Your task to perform on an android device: remove spam from my inbox in the gmail app Image 0: 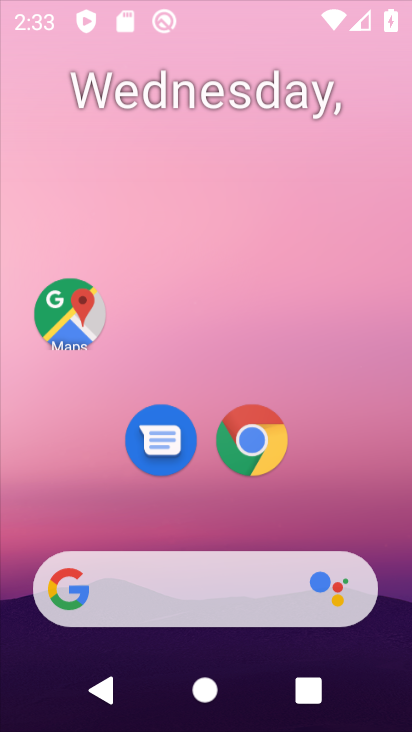
Step 0: click (289, 5)
Your task to perform on an android device: remove spam from my inbox in the gmail app Image 1: 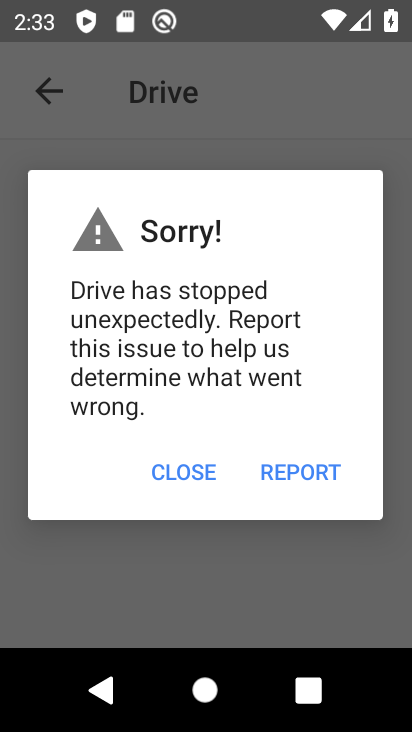
Step 1: press home button
Your task to perform on an android device: remove spam from my inbox in the gmail app Image 2: 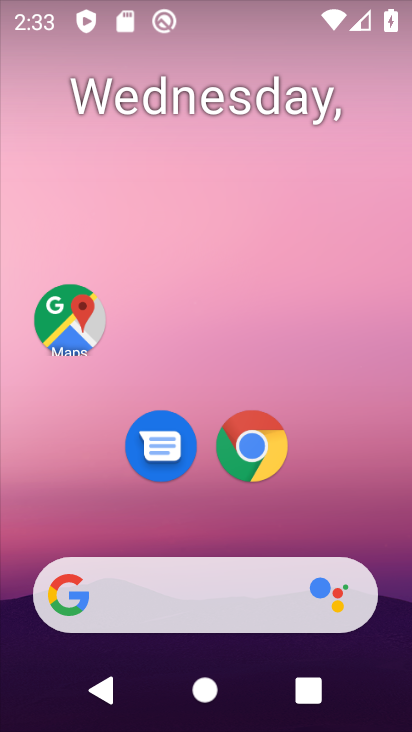
Step 2: drag from (329, 546) to (351, 36)
Your task to perform on an android device: remove spam from my inbox in the gmail app Image 3: 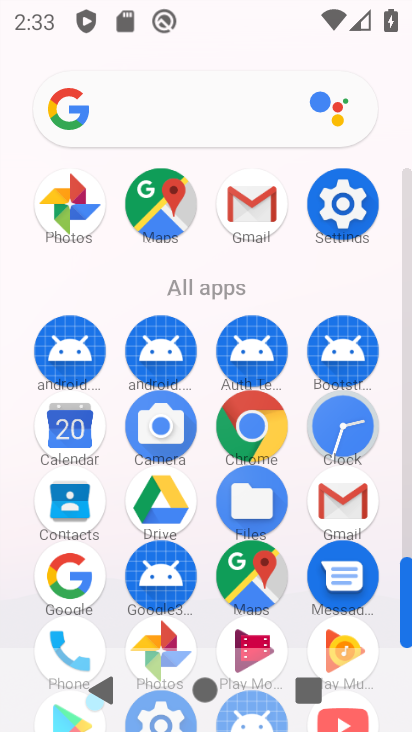
Step 3: click (250, 222)
Your task to perform on an android device: remove spam from my inbox in the gmail app Image 4: 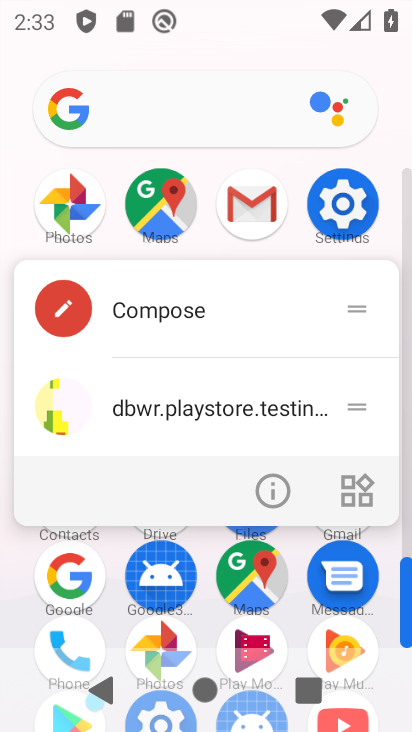
Step 4: click (250, 222)
Your task to perform on an android device: remove spam from my inbox in the gmail app Image 5: 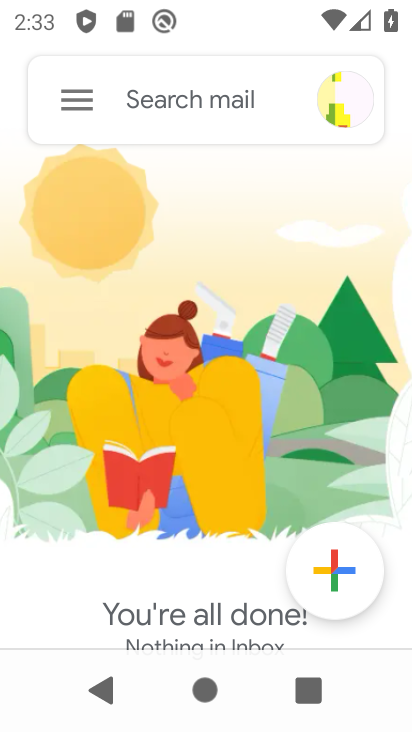
Step 5: click (88, 105)
Your task to perform on an android device: remove spam from my inbox in the gmail app Image 6: 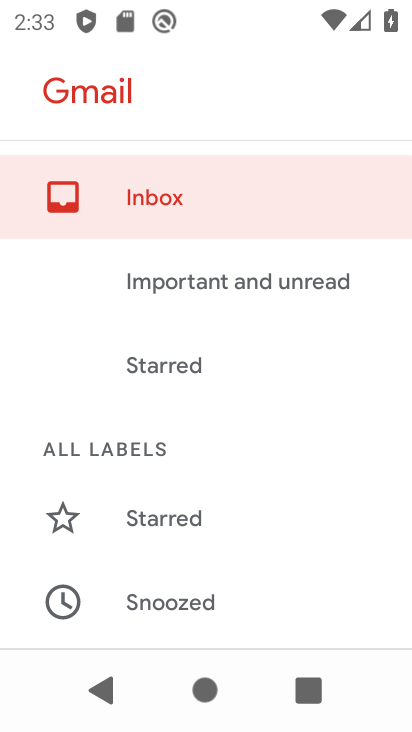
Step 6: drag from (192, 460) to (237, 314)
Your task to perform on an android device: remove spam from my inbox in the gmail app Image 7: 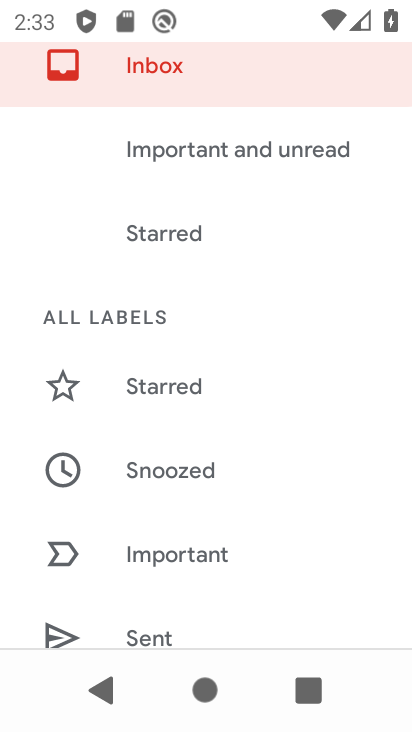
Step 7: drag from (208, 447) to (228, 358)
Your task to perform on an android device: remove spam from my inbox in the gmail app Image 8: 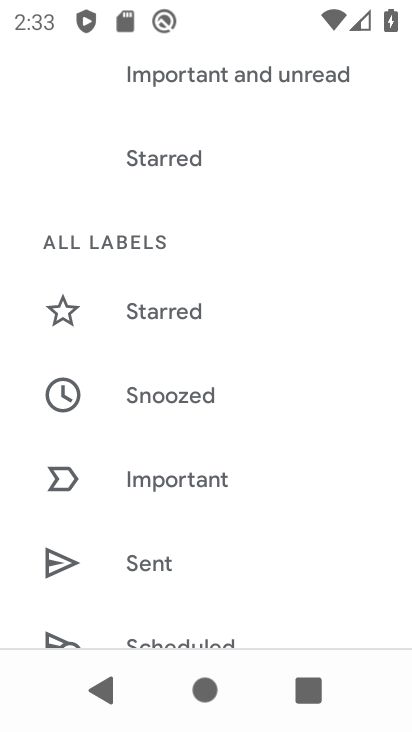
Step 8: drag from (189, 434) to (199, 347)
Your task to perform on an android device: remove spam from my inbox in the gmail app Image 9: 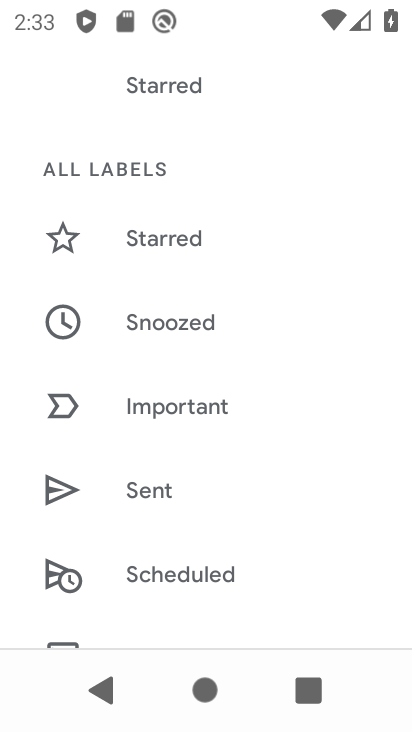
Step 9: drag from (185, 454) to (196, 360)
Your task to perform on an android device: remove spam from my inbox in the gmail app Image 10: 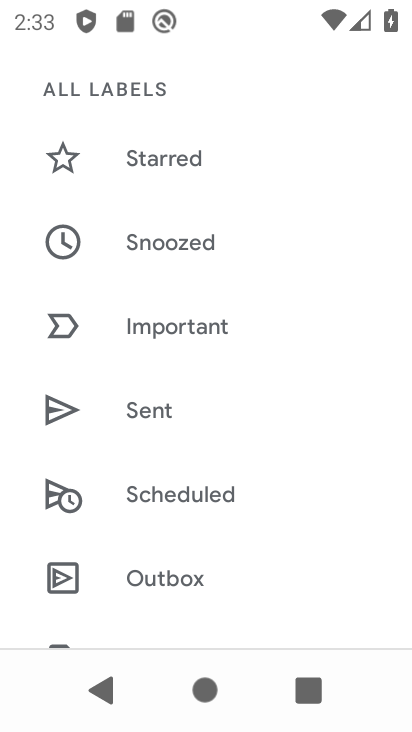
Step 10: drag from (175, 453) to (194, 352)
Your task to perform on an android device: remove spam from my inbox in the gmail app Image 11: 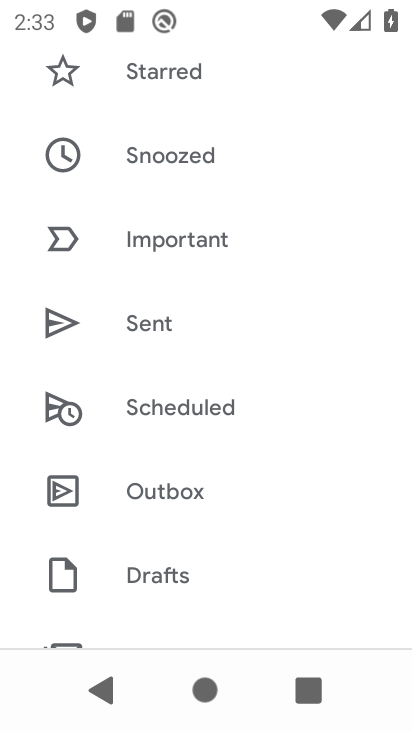
Step 11: drag from (177, 450) to (212, 362)
Your task to perform on an android device: remove spam from my inbox in the gmail app Image 12: 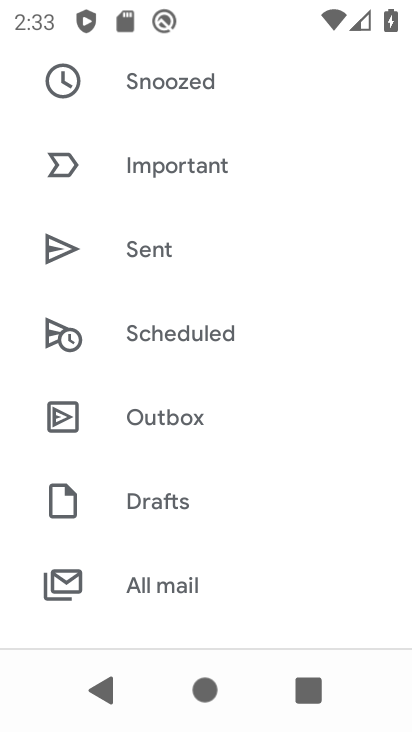
Step 12: drag from (185, 457) to (229, 372)
Your task to perform on an android device: remove spam from my inbox in the gmail app Image 13: 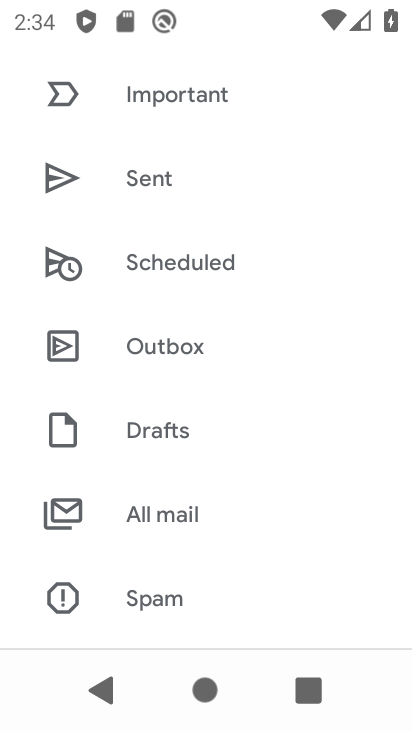
Step 13: drag from (187, 454) to (203, 370)
Your task to perform on an android device: remove spam from my inbox in the gmail app Image 14: 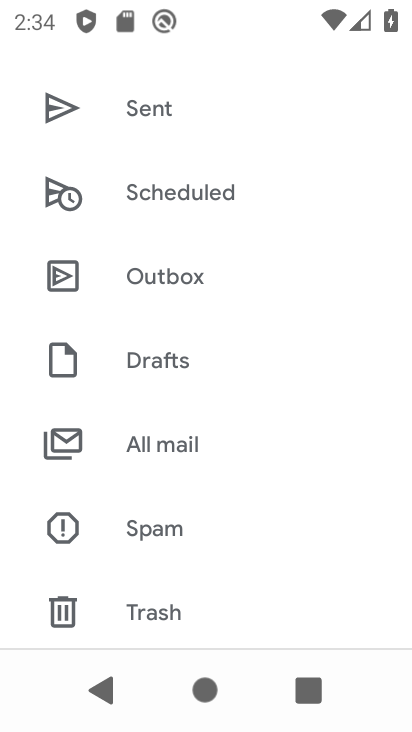
Step 14: click (165, 522)
Your task to perform on an android device: remove spam from my inbox in the gmail app Image 15: 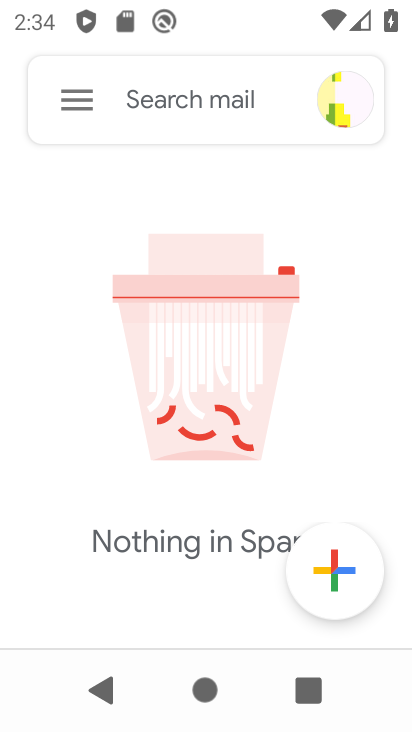
Step 15: task complete